Your task to perform on an android device: move an email to a new category in the gmail app Image 0: 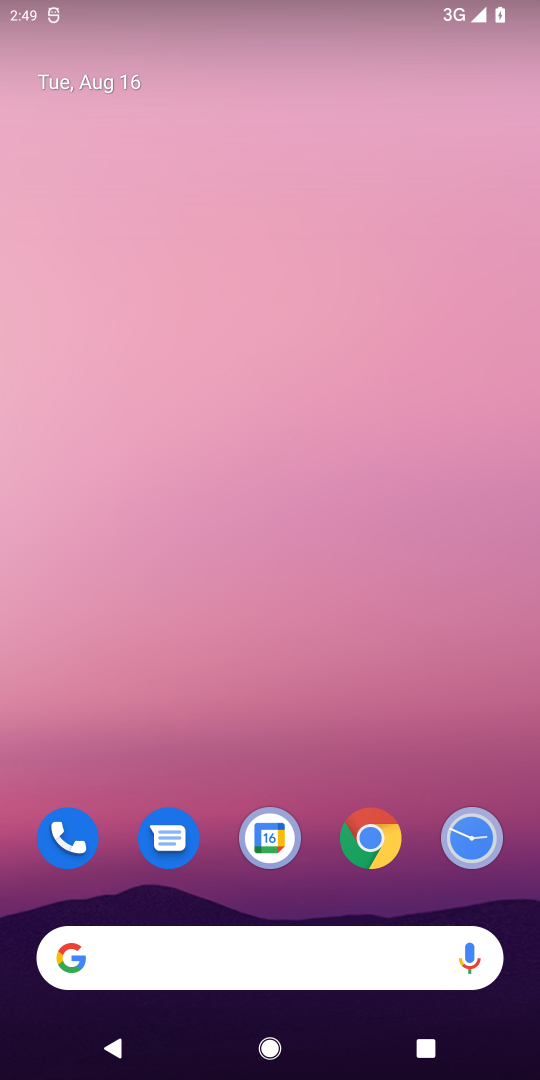
Step 0: press home button
Your task to perform on an android device: move an email to a new category in the gmail app Image 1: 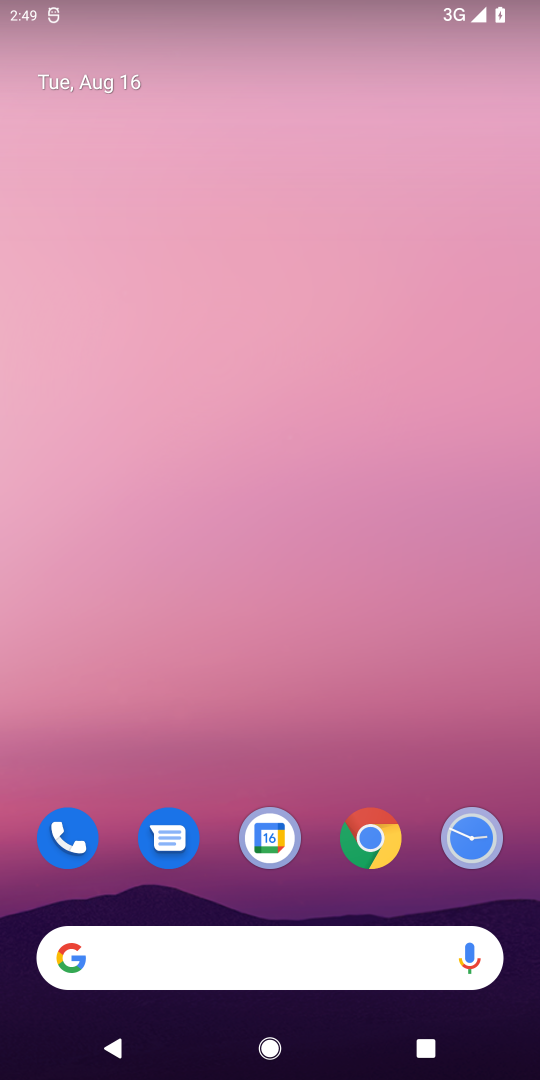
Step 1: drag from (243, 585) to (289, 167)
Your task to perform on an android device: move an email to a new category in the gmail app Image 2: 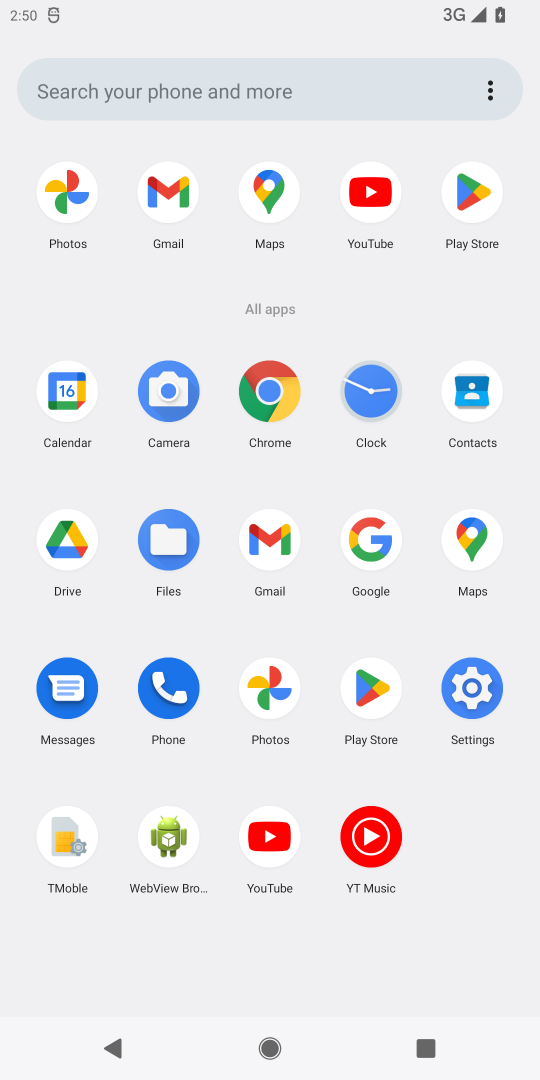
Step 2: click (166, 171)
Your task to perform on an android device: move an email to a new category in the gmail app Image 3: 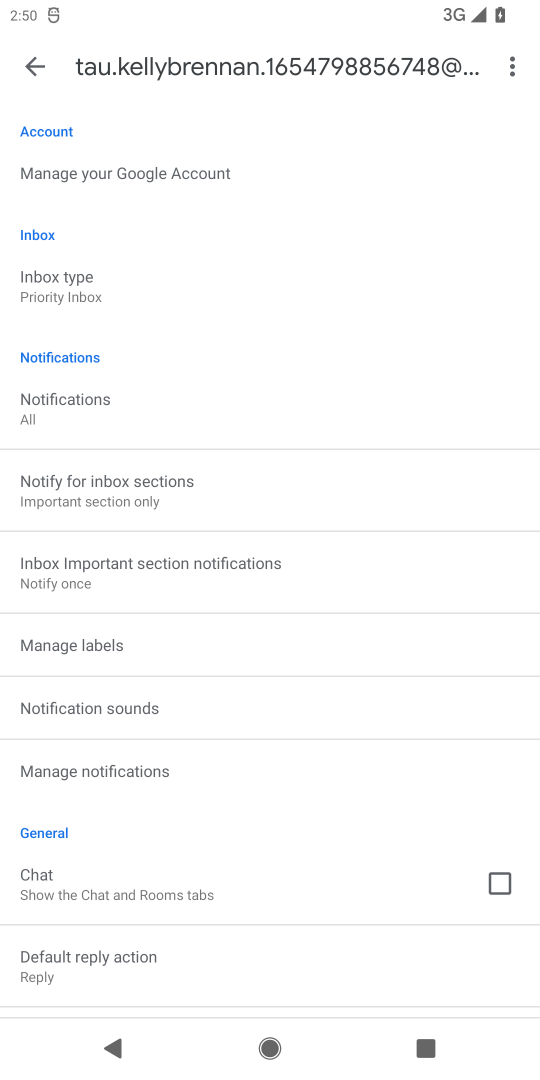
Step 3: click (32, 66)
Your task to perform on an android device: move an email to a new category in the gmail app Image 4: 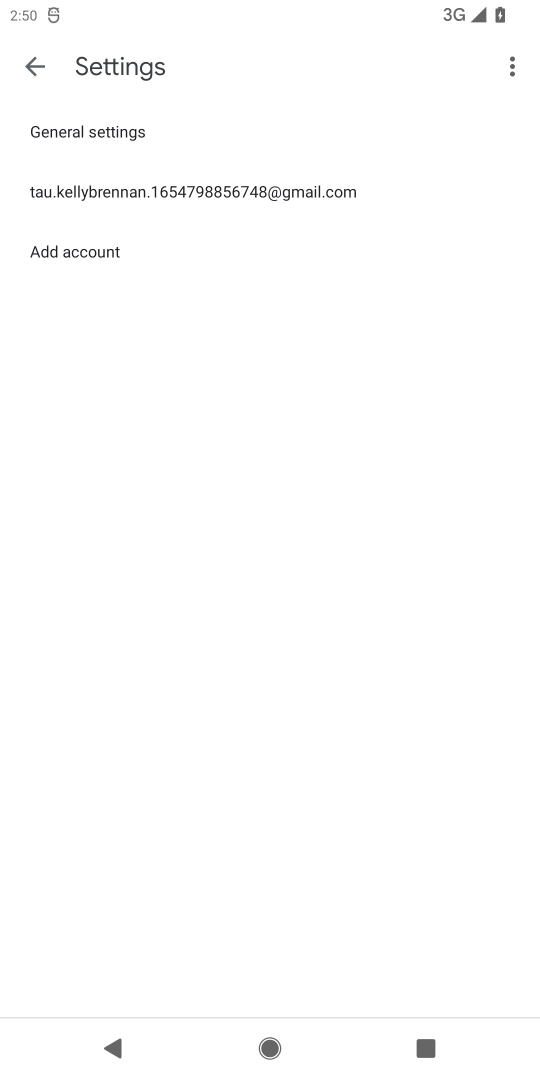
Step 4: click (24, 61)
Your task to perform on an android device: move an email to a new category in the gmail app Image 5: 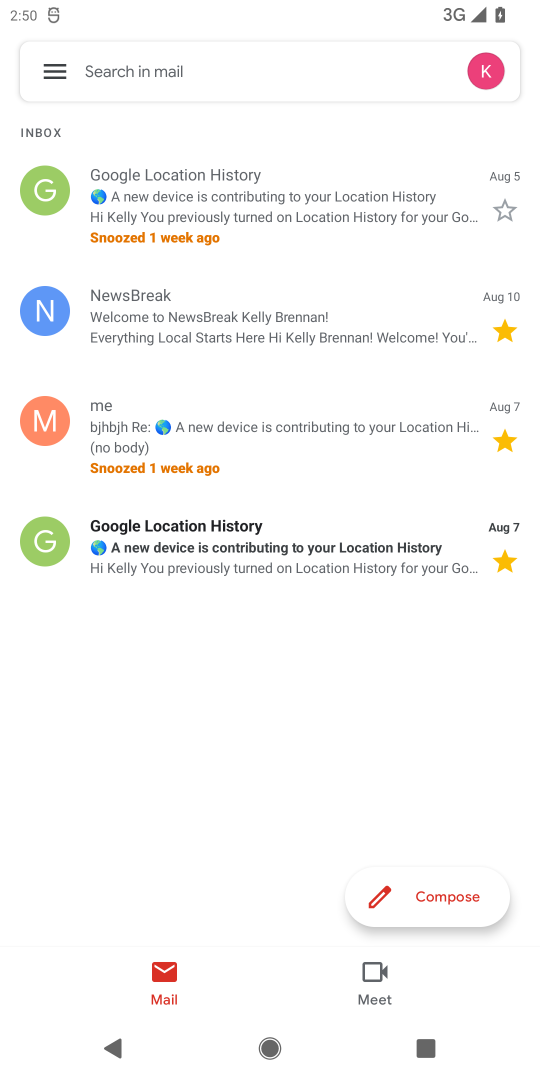
Step 5: click (288, 193)
Your task to perform on an android device: move an email to a new category in the gmail app Image 6: 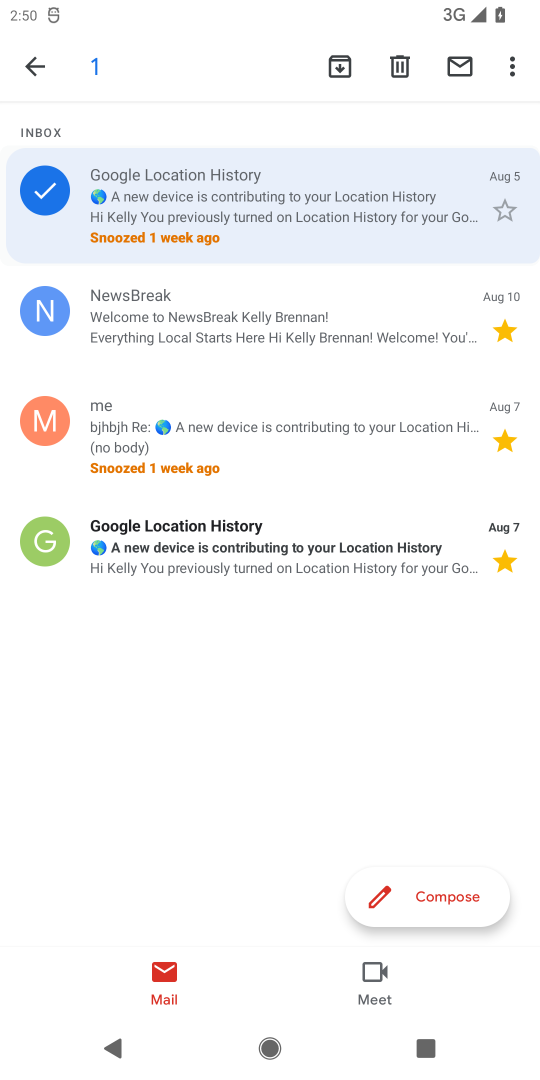
Step 6: click (508, 61)
Your task to perform on an android device: move an email to a new category in the gmail app Image 7: 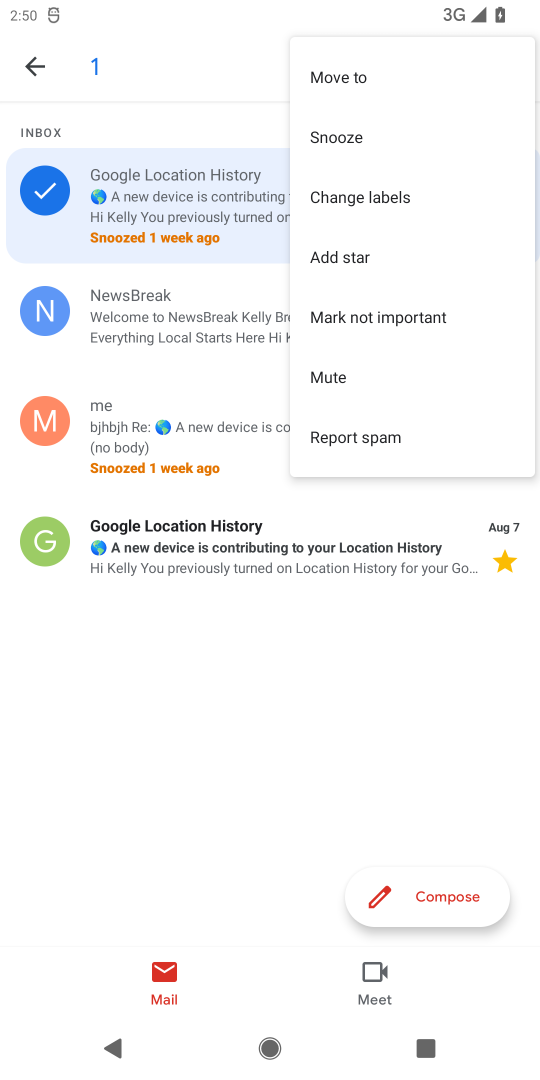
Step 7: click (336, 76)
Your task to perform on an android device: move an email to a new category in the gmail app Image 8: 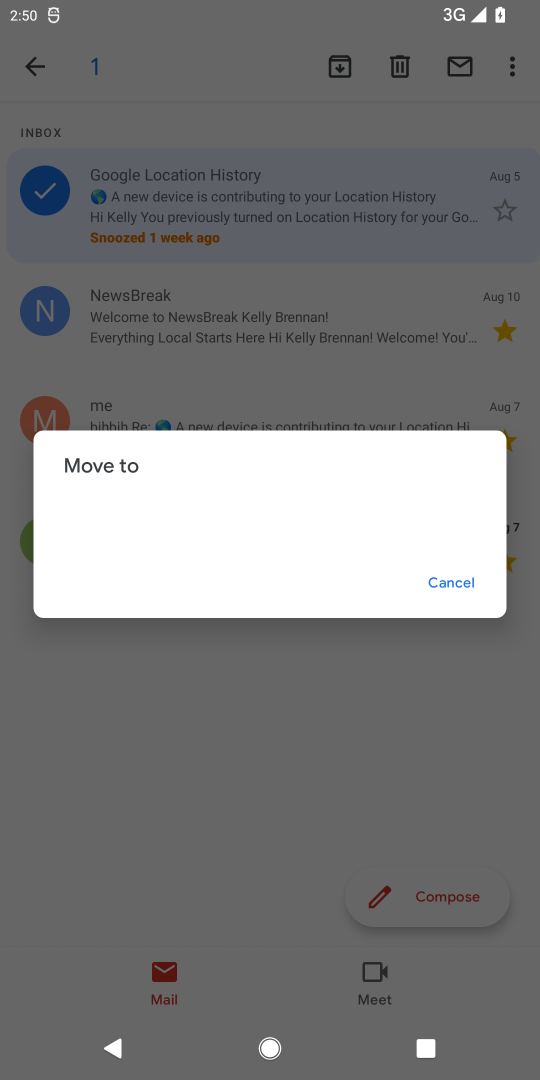
Step 8: click (200, 492)
Your task to perform on an android device: move an email to a new category in the gmail app Image 9: 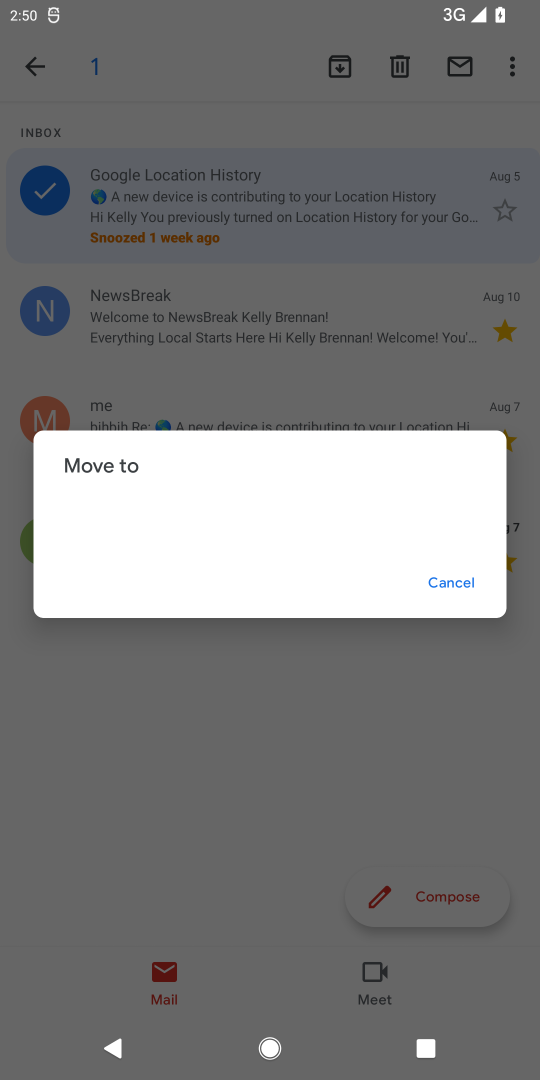
Step 9: click (331, 551)
Your task to perform on an android device: move an email to a new category in the gmail app Image 10: 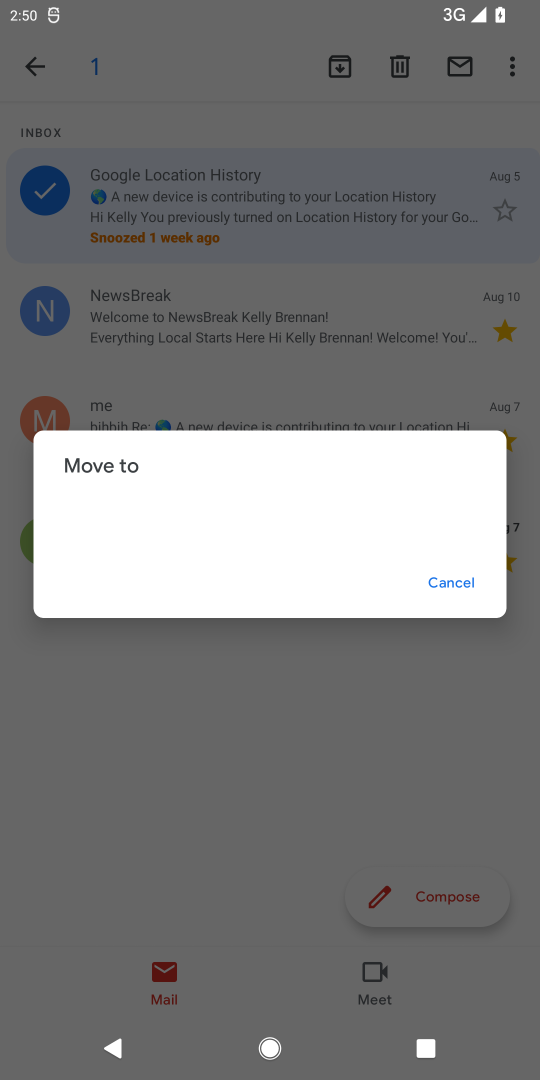
Step 10: click (378, 688)
Your task to perform on an android device: move an email to a new category in the gmail app Image 11: 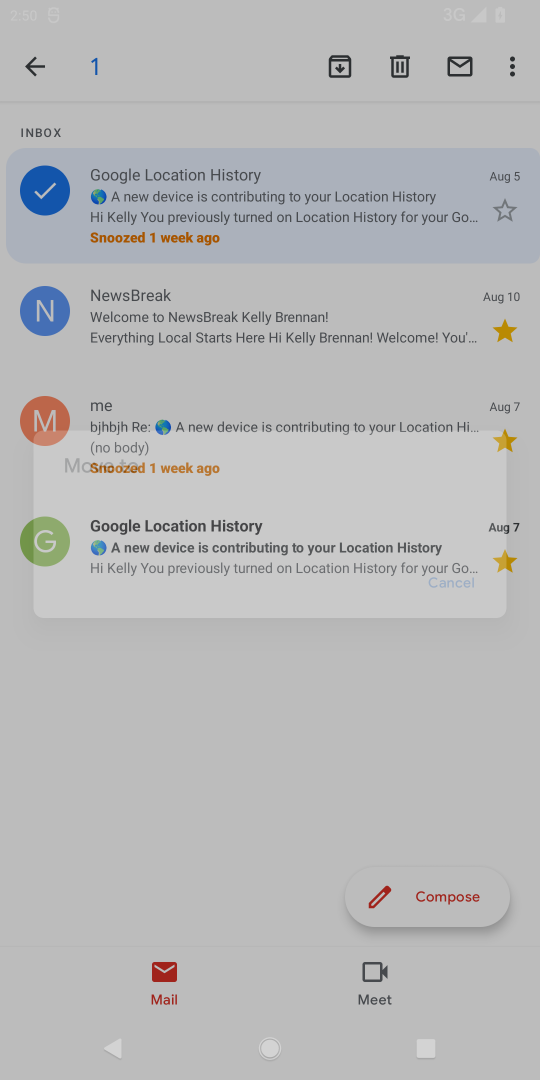
Step 11: click (457, 581)
Your task to perform on an android device: move an email to a new category in the gmail app Image 12: 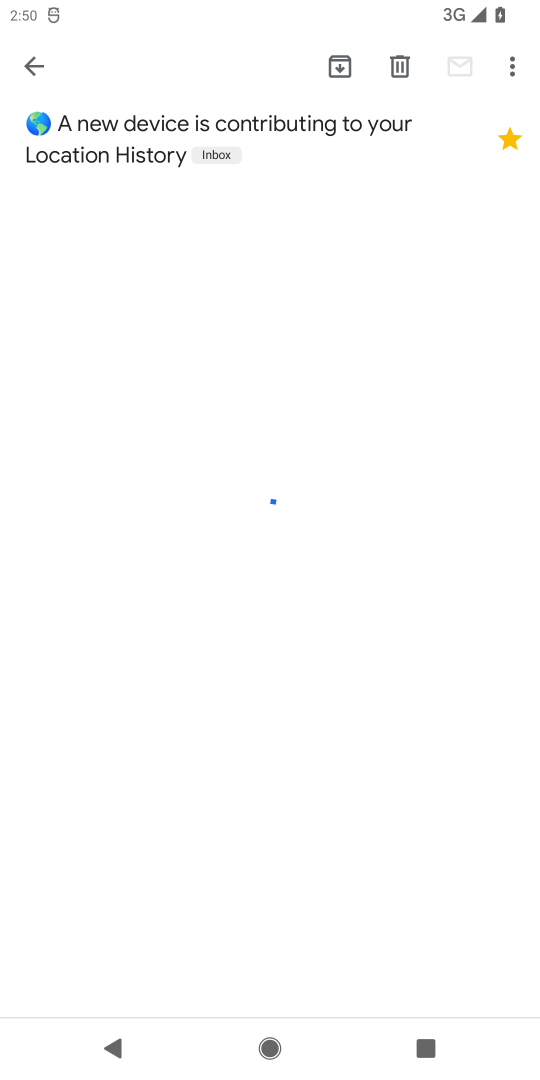
Step 12: click (515, 58)
Your task to perform on an android device: move an email to a new category in the gmail app Image 13: 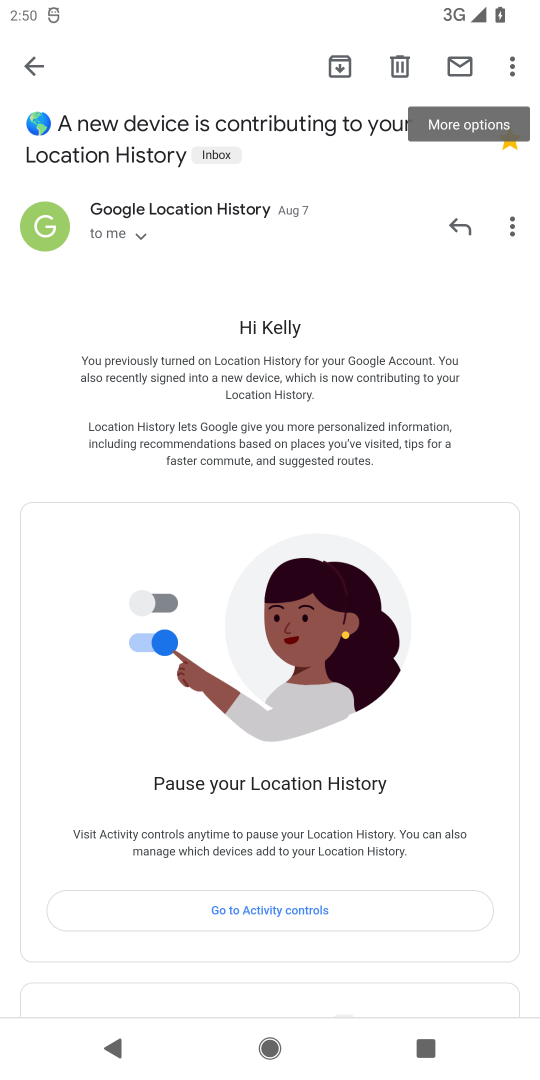
Step 13: click (515, 58)
Your task to perform on an android device: move an email to a new category in the gmail app Image 14: 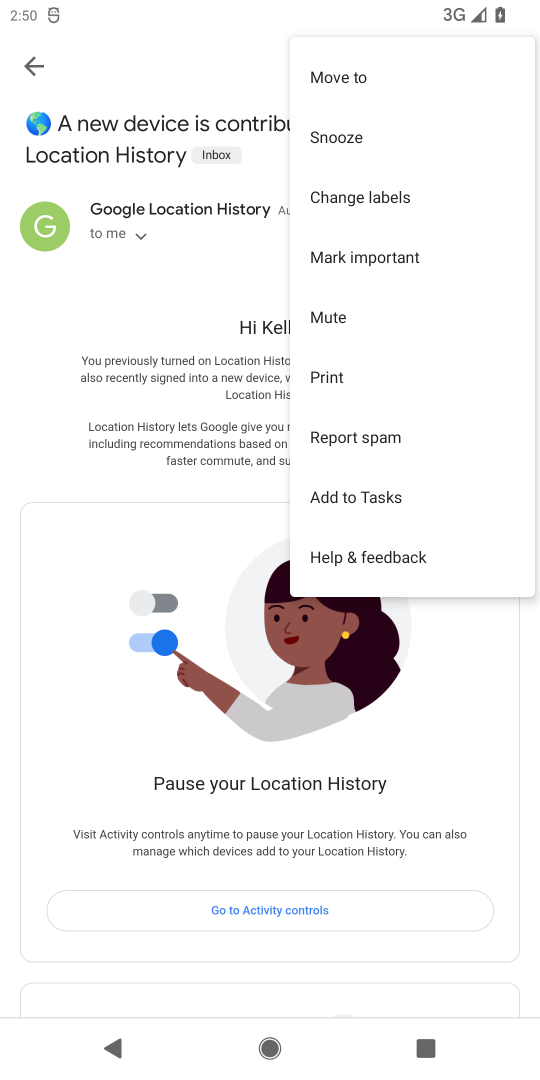
Step 14: click (338, 63)
Your task to perform on an android device: move an email to a new category in the gmail app Image 15: 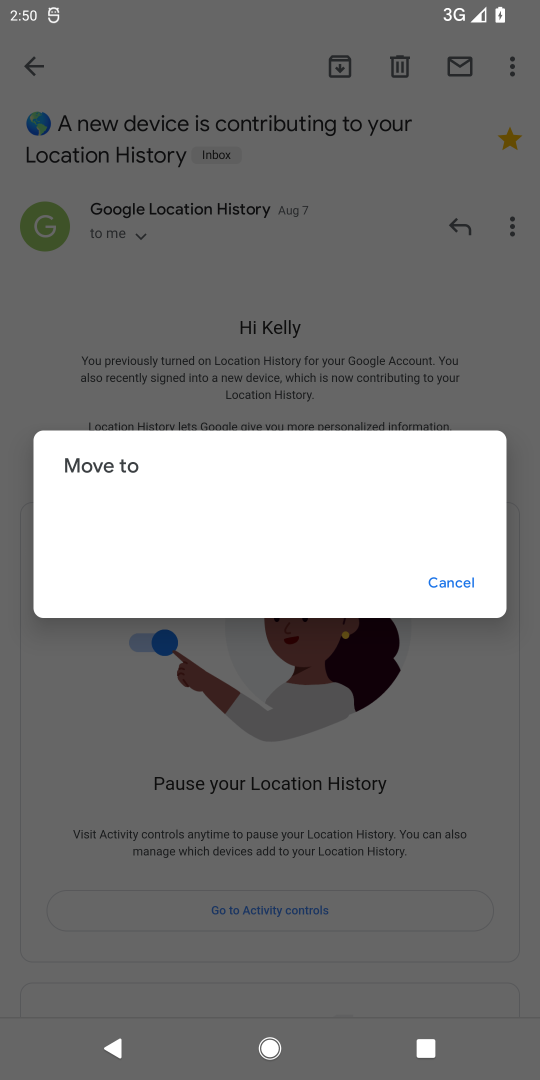
Step 15: click (340, 79)
Your task to perform on an android device: move an email to a new category in the gmail app Image 16: 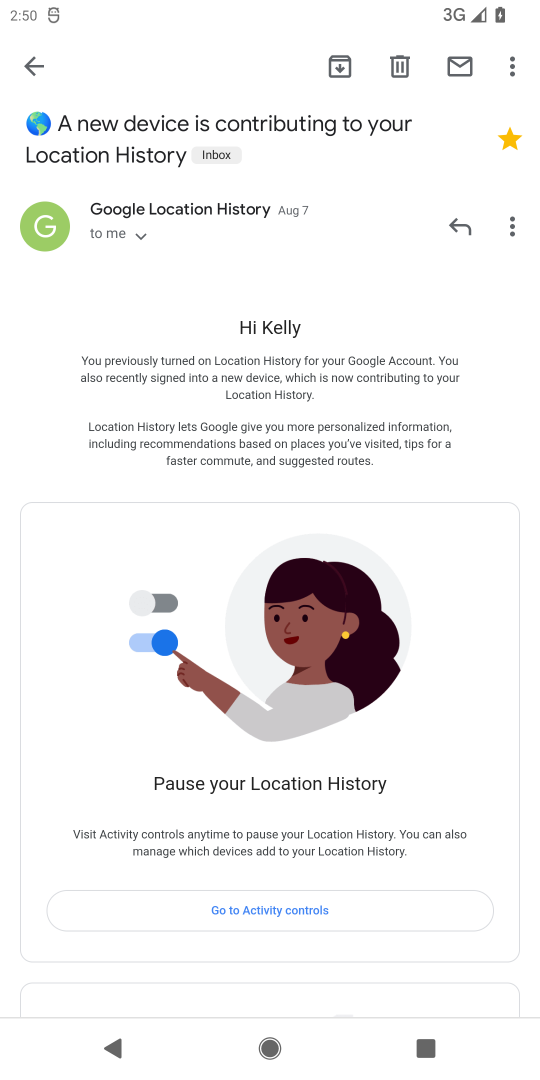
Step 16: task complete